Your task to perform on an android device: Open Google Chrome and click the shortcut for Amazon.com Image 0: 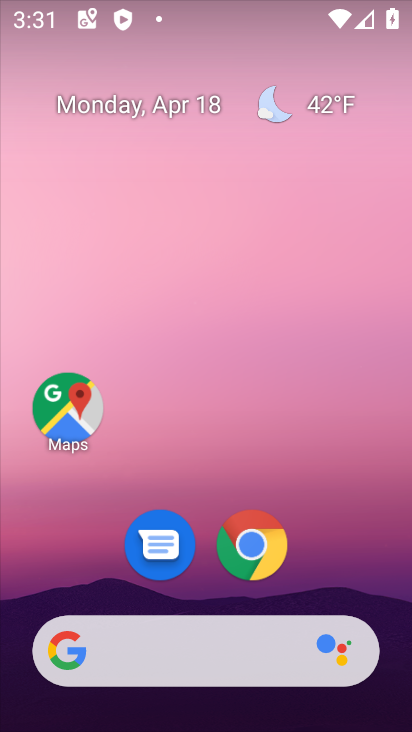
Step 0: drag from (358, 541) to (345, 69)
Your task to perform on an android device: Open Google Chrome and click the shortcut for Amazon.com Image 1: 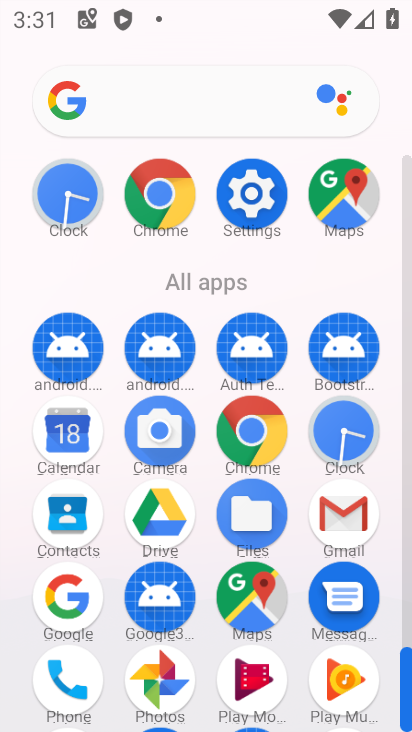
Step 1: click (262, 431)
Your task to perform on an android device: Open Google Chrome and click the shortcut for Amazon.com Image 2: 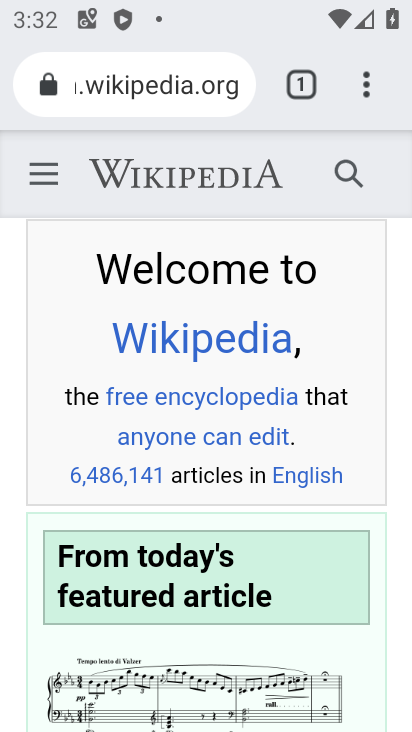
Step 2: press back button
Your task to perform on an android device: Open Google Chrome and click the shortcut for Amazon.com Image 3: 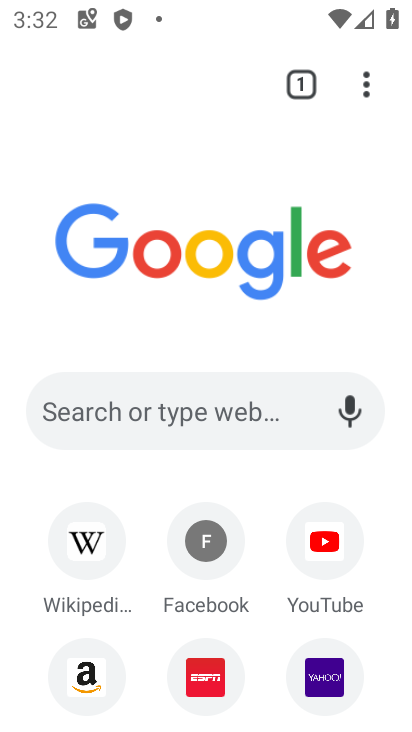
Step 3: click (84, 683)
Your task to perform on an android device: Open Google Chrome and click the shortcut for Amazon.com Image 4: 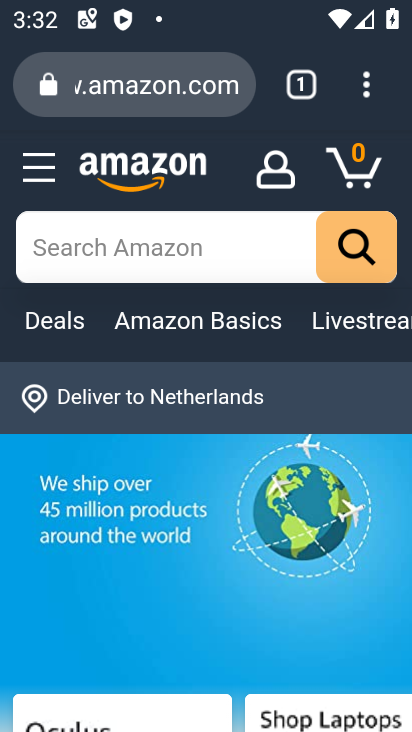
Step 4: task complete